Your task to perform on an android device: change alarm snooze length Image 0: 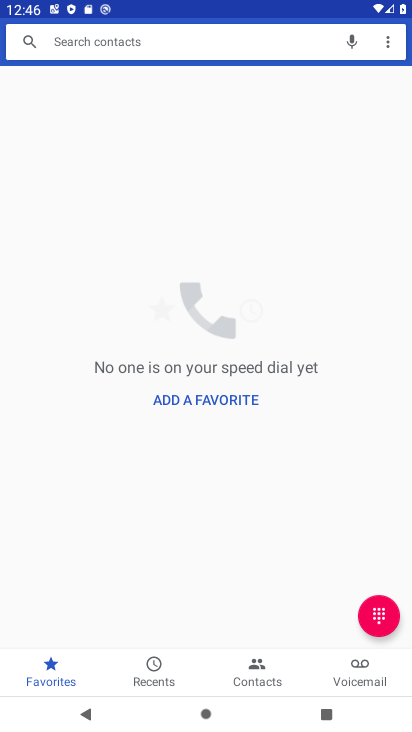
Step 0: press home button
Your task to perform on an android device: change alarm snooze length Image 1: 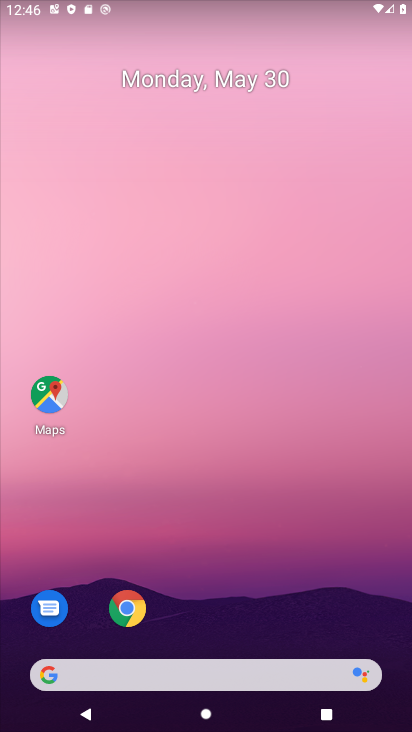
Step 1: drag from (278, 574) to (228, 108)
Your task to perform on an android device: change alarm snooze length Image 2: 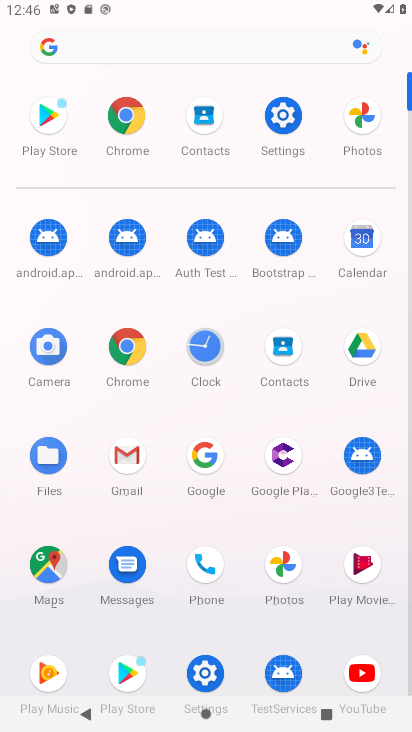
Step 2: click (191, 352)
Your task to perform on an android device: change alarm snooze length Image 3: 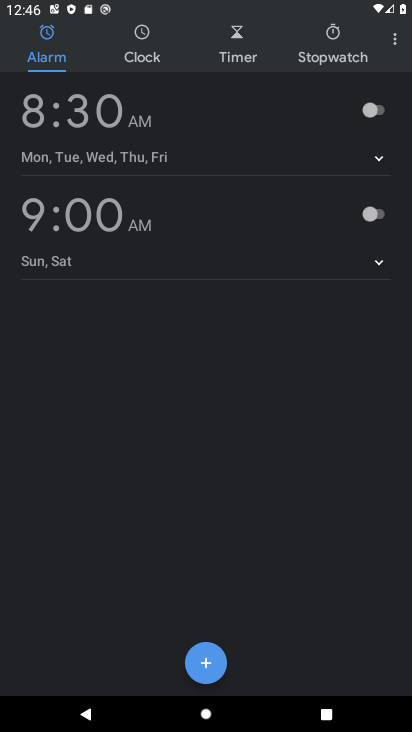
Step 3: click (207, 135)
Your task to perform on an android device: change alarm snooze length Image 4: 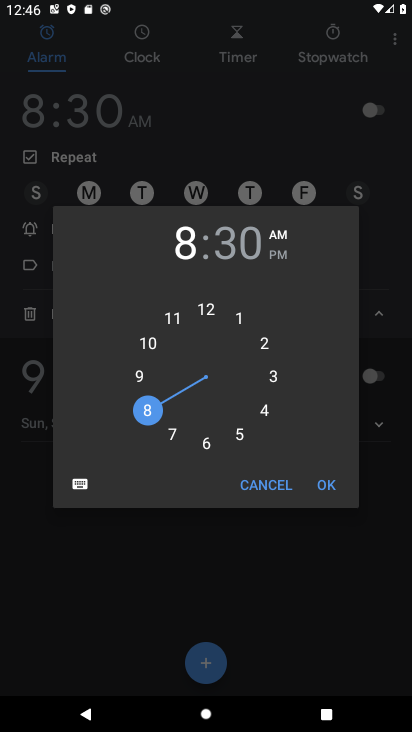
Step 4: click (332, 477)
Your task to perform on an android device: change alarm snooze length Image 5: 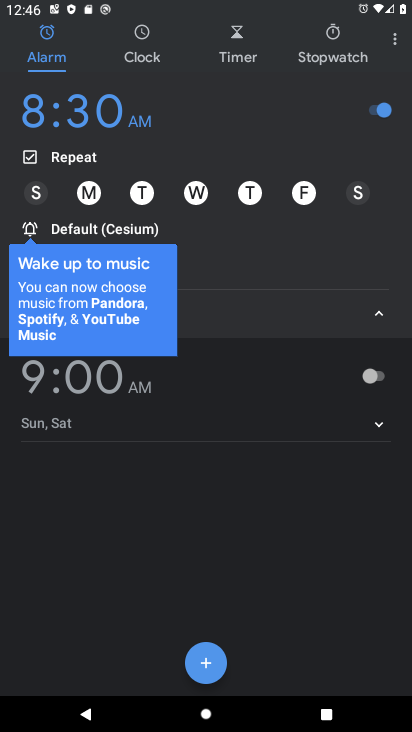
Step 5: click (74, 230)
Your task to perform on an android device: change alarm snooze length Image 6: 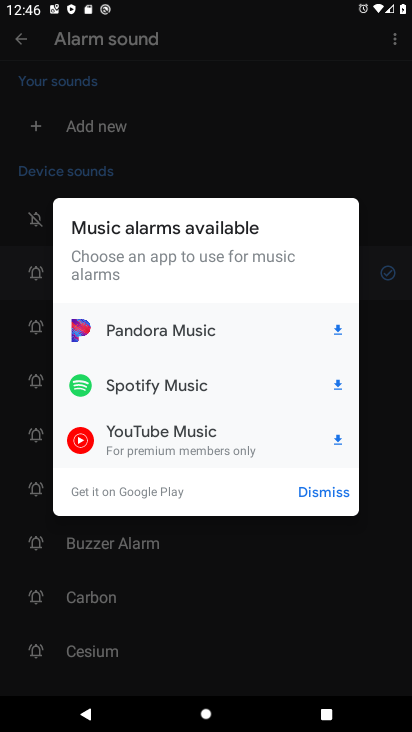
Step 6: click (309, 484)
Your task to perform on an android device: change alarm snooze length Image 7: 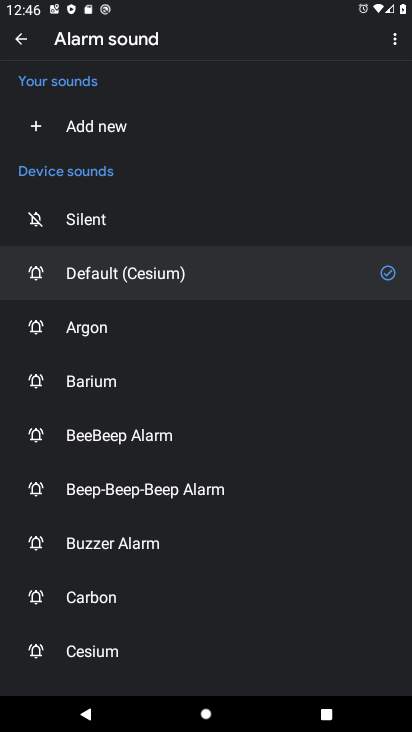
Step 7: drag from (197, 584) to (186, 140)
Your task to perform on an android device: change alarm snooze length Image 8: 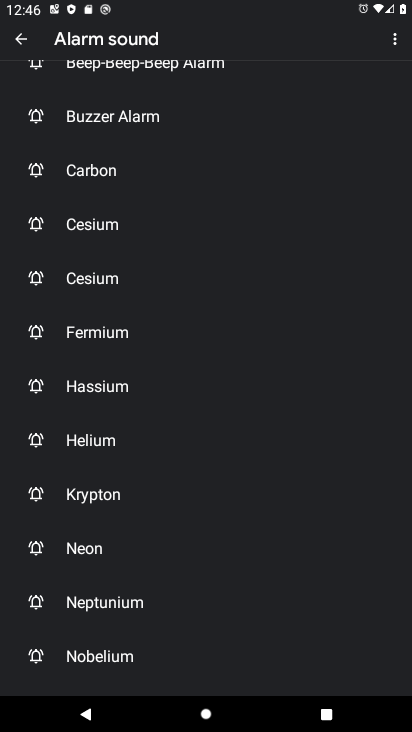
Step 8: drag from (192, 544) to (154, 173)
Your task to perform on an android device: change alarm snooze length Image 9: 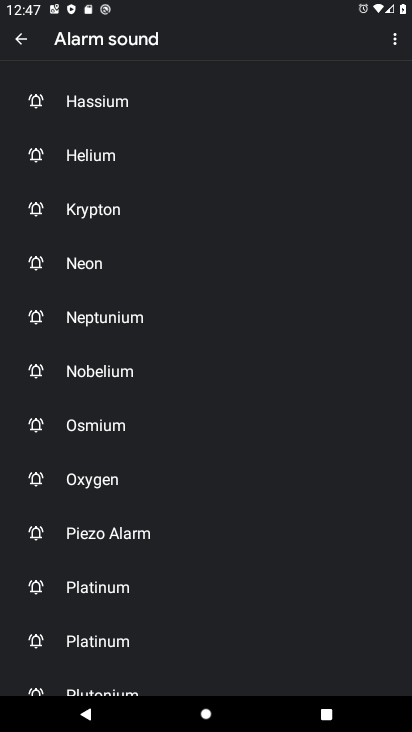
Step 9: click (18, 25)
Your task to perform on an android device: change alarm snooze length Image 10: 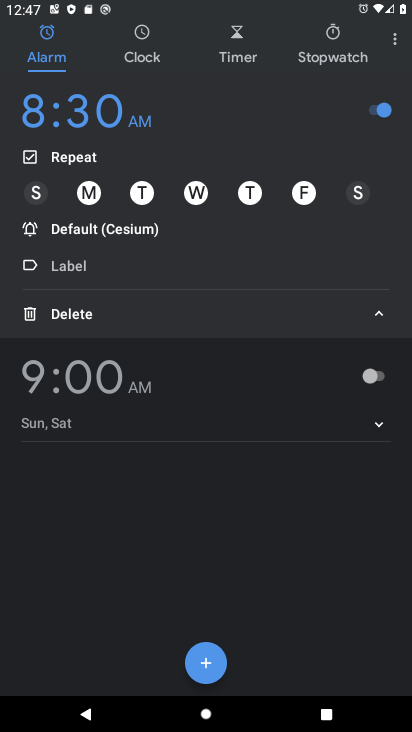
Step 10: click (94, 258)
Your task to perform on an android device: change alarm snooze length Image 11: 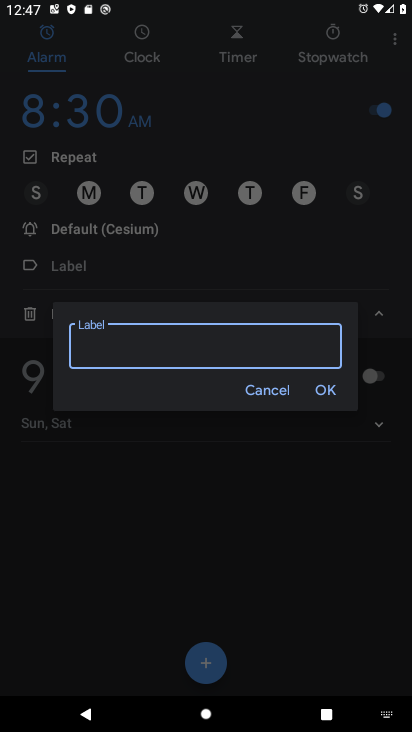
Step 11: click (264, 388)
Your task to perform on an android device: change alarm snooze length Image 12: 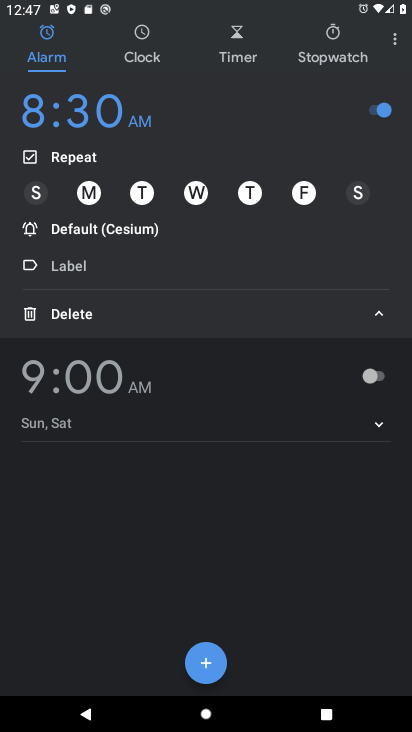
Step 12: click (384, 310)
Your task to perform on an android device: change alarm snooze length Image 13: 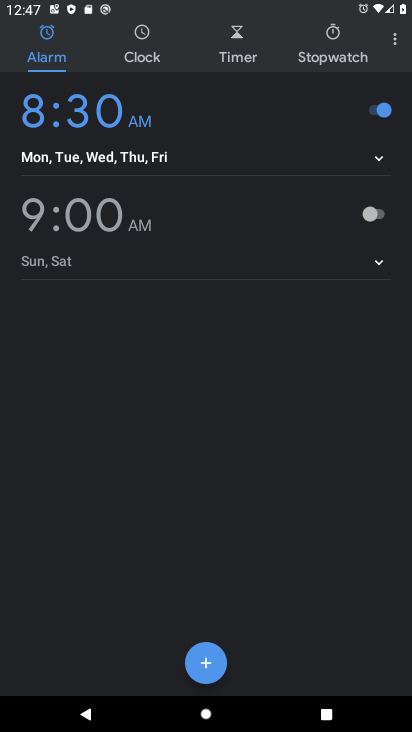
Step 13: click (211, 114)
Your task to perform on an android device: change alarm snooze length Image 14: 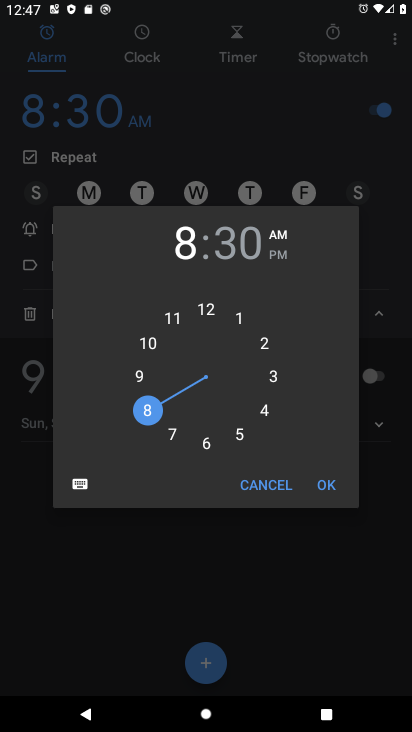
Step 14: click (318, 489)
Your task to perform on an android device: change alarm snooze length Image 15: 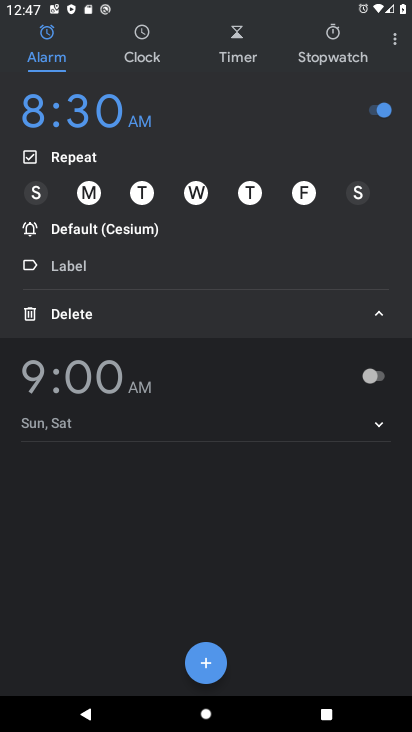
Step 15: click (373, 37)
Your task to perform on an android device: change alarm snooze length Image 16: 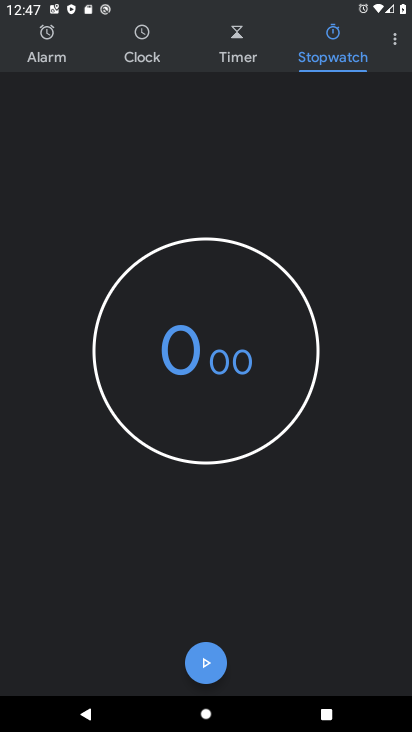
Step 16: click (383, 49)
Your task to perform on an android device: change alarm snooze length Image 17: 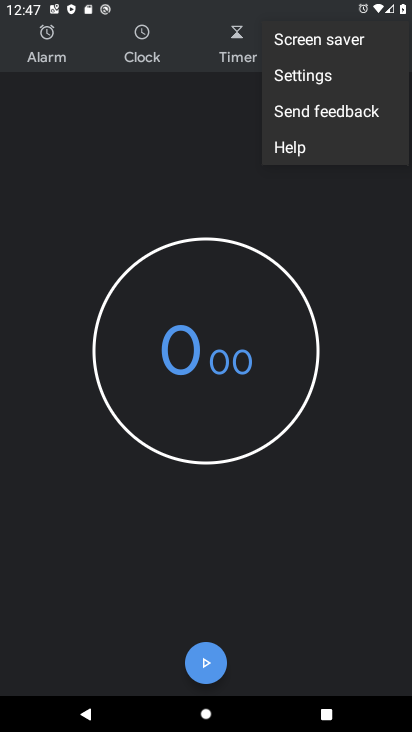
Step 17: click (295, 73)
Your task to perform on an android device: change alarm snooze length Image 18: 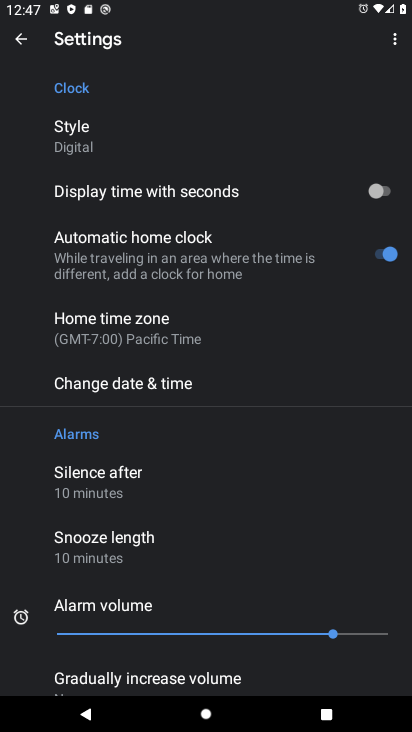
Step 18: click (174, 535)
Your task to perform on an android device: change alarm snooze length Image 19: 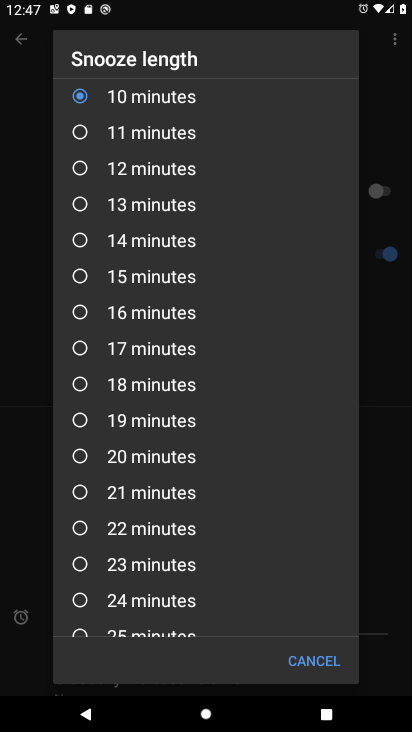
Step 19: click (146, 122)
Your task to perform on an android device: change alarm snooze length Image 20: 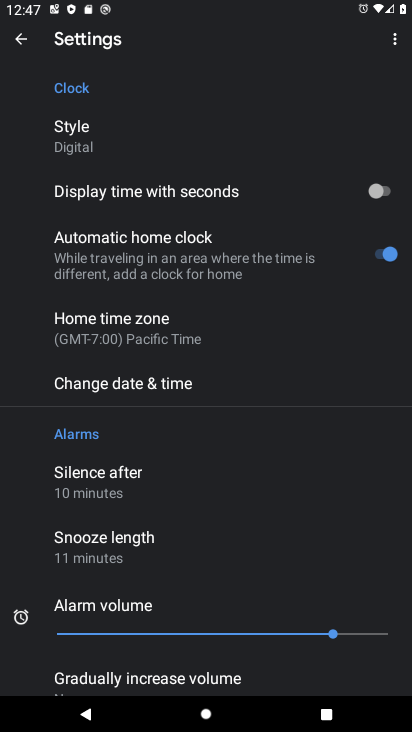
Step 20: click (91, 487)
Your task to perform on an android device: change alarm snooze length Image 21: 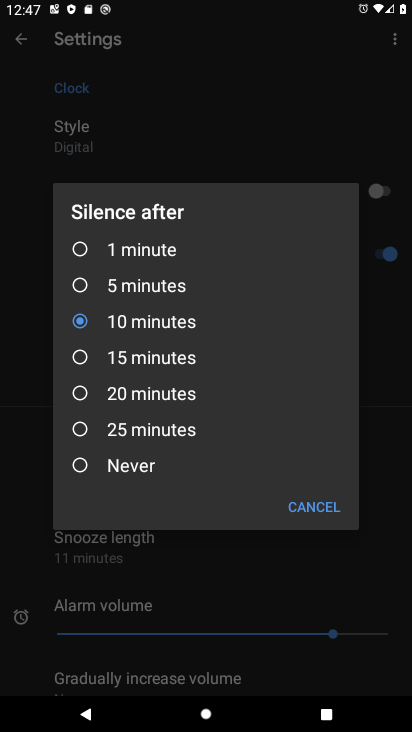
Step 21: click (79, 353)
Your task to perform on an android device: change alarm snooze length Image 22: 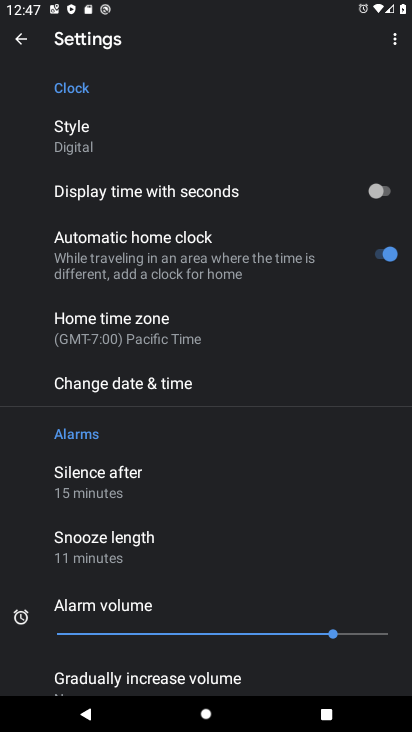
Step 22: task complete